Your task to perform on an android device: Search for 4k TVs on Best Buy. Image 0: 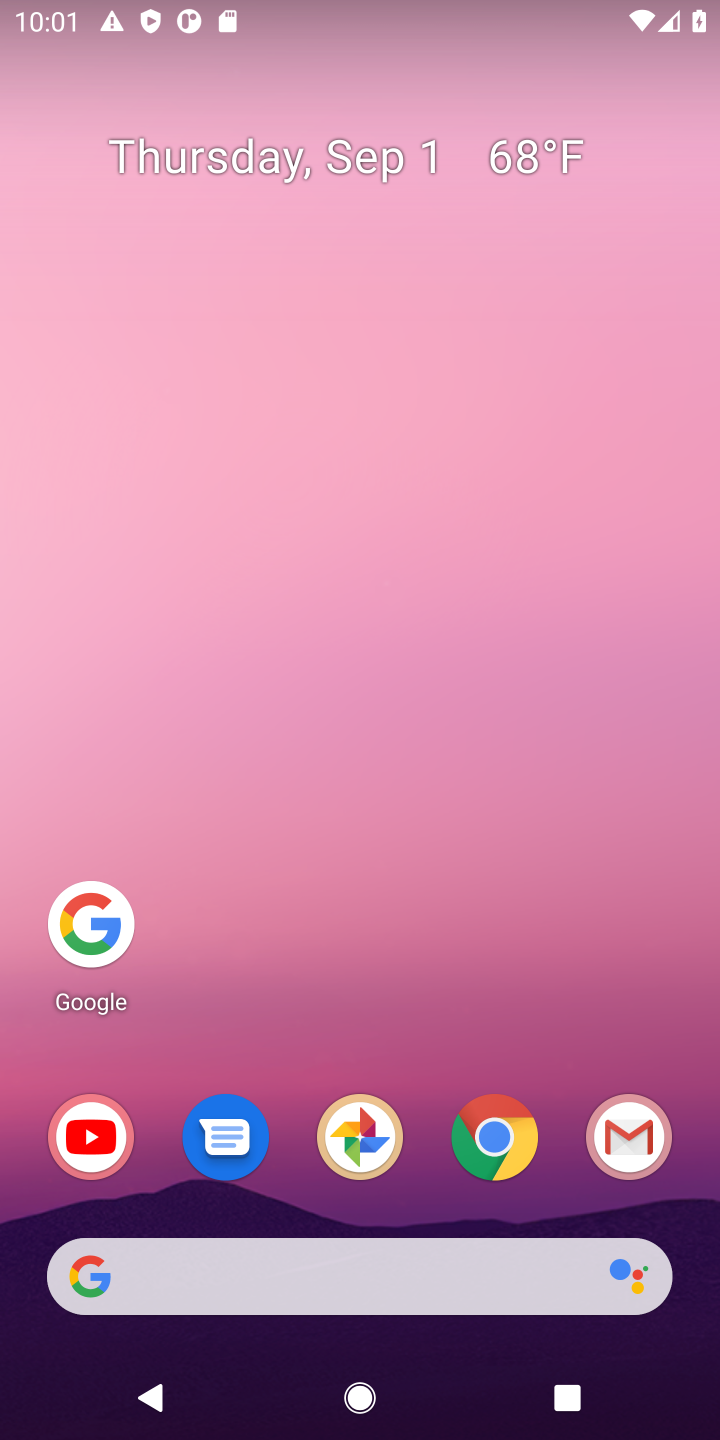
Step 0: click (313, 1264)
Your task to perform on an android device: Search for 4k TVs on Best Buy. Image 1: 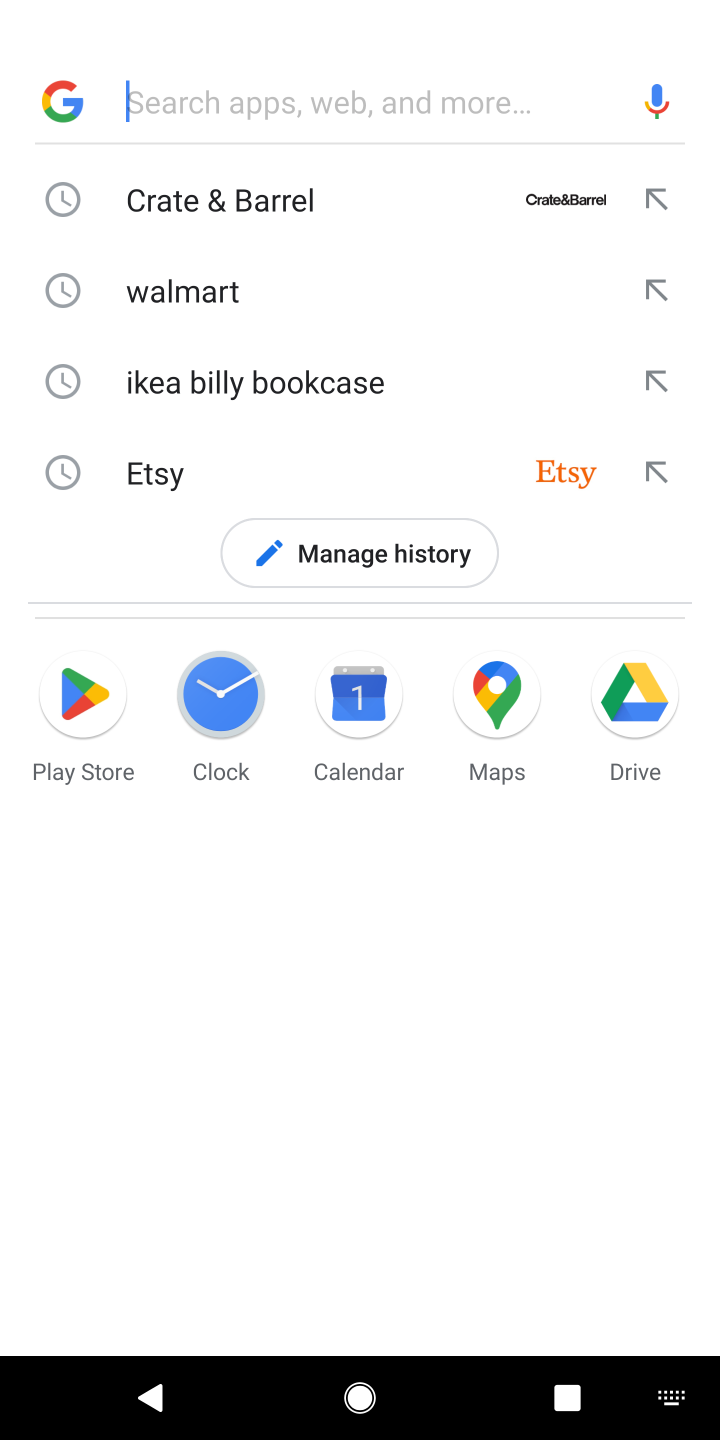
Step 1: type "best buy"
Your task to perform on an android device: Search for 4k TVs on Best Buy. Image 2: 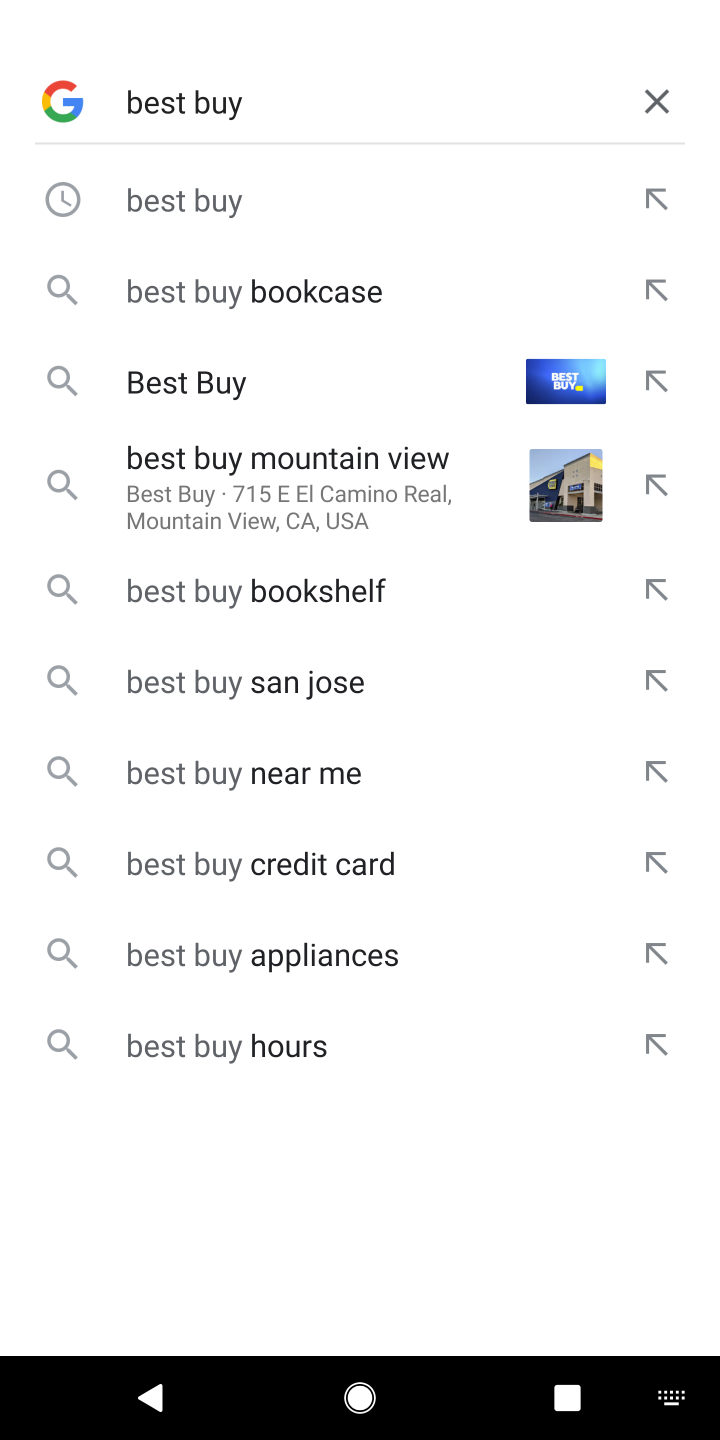
Step 2: click (145, 195)
Your task to perform on an android device: Search for 4k TVs on Best Buy. Image 3: 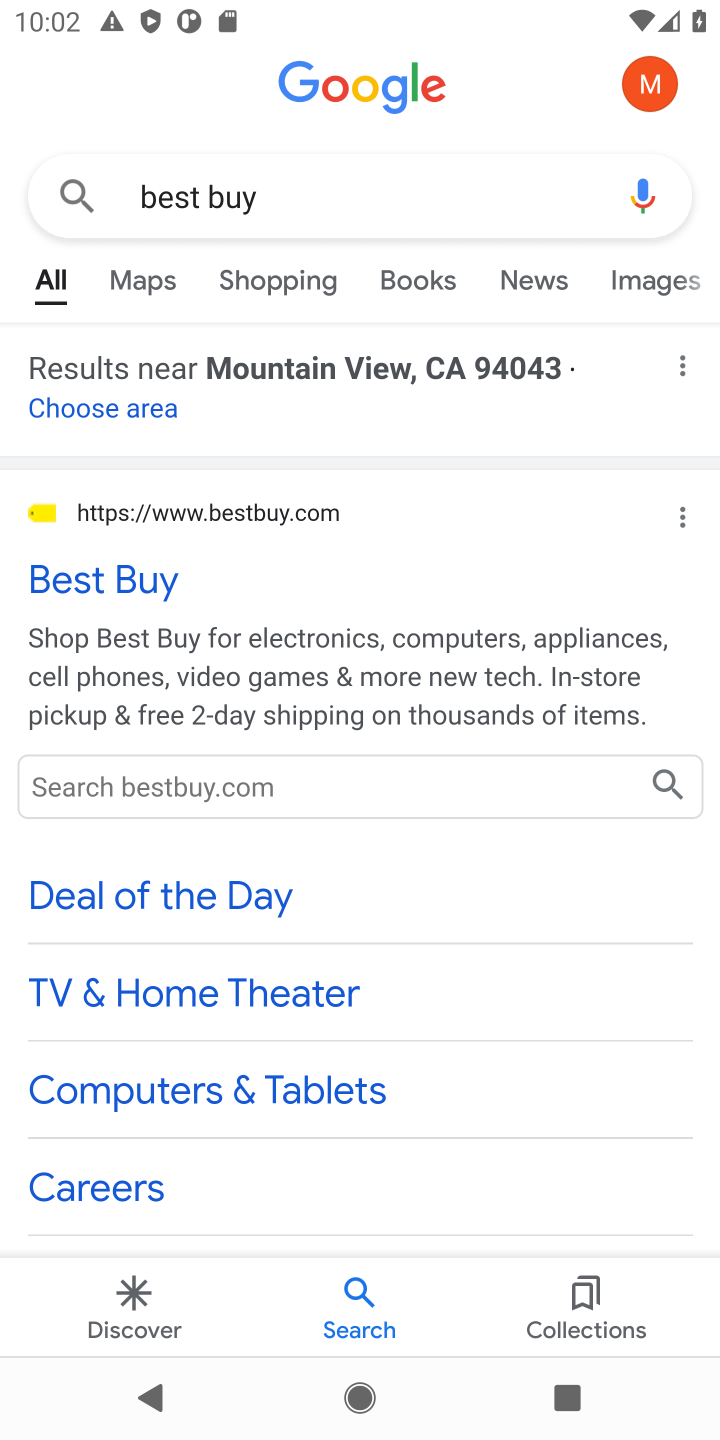
Step 3: click (73, 597)
Your task to perform on an android device: Search for 4k TVs on Best Buy. Image 4: 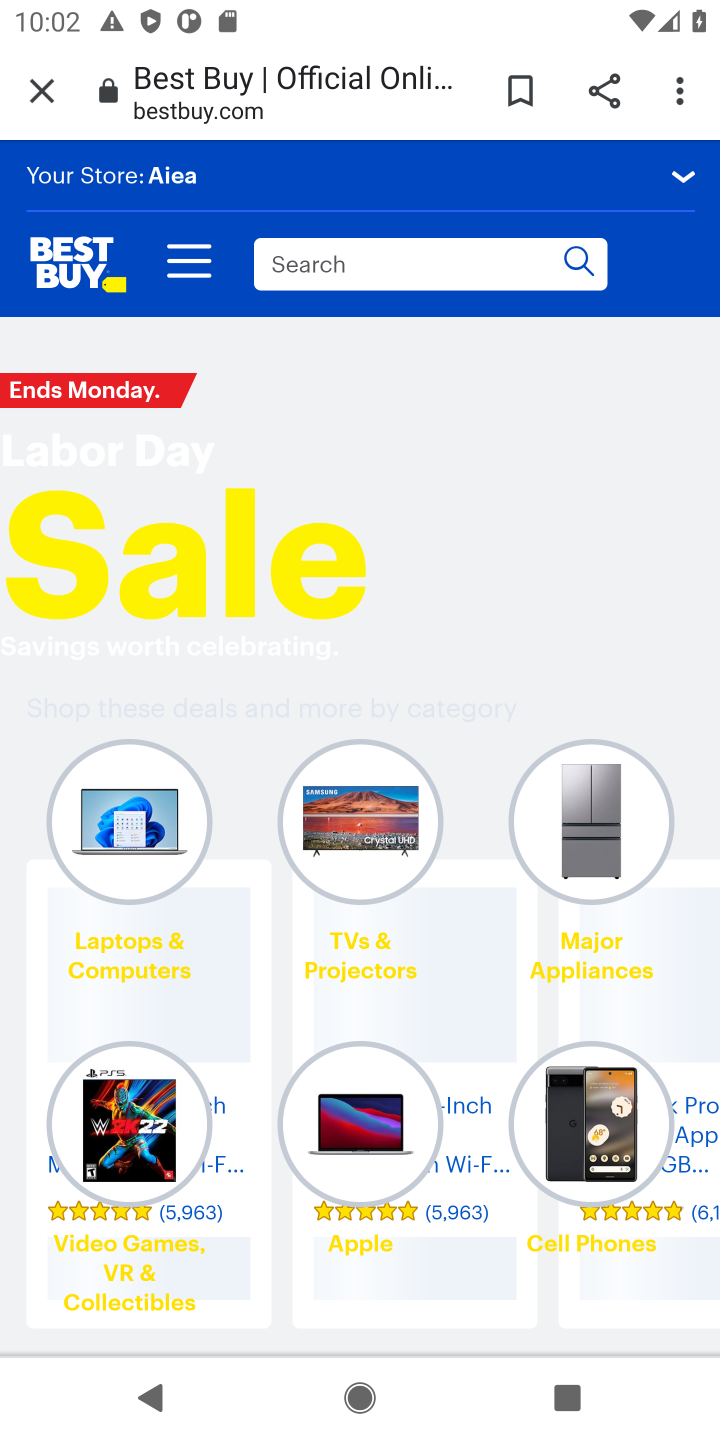
Step 4: click (428, 266)
Your task to perform on an android device: Search for 4k TVs on Best Buy. Image 5: 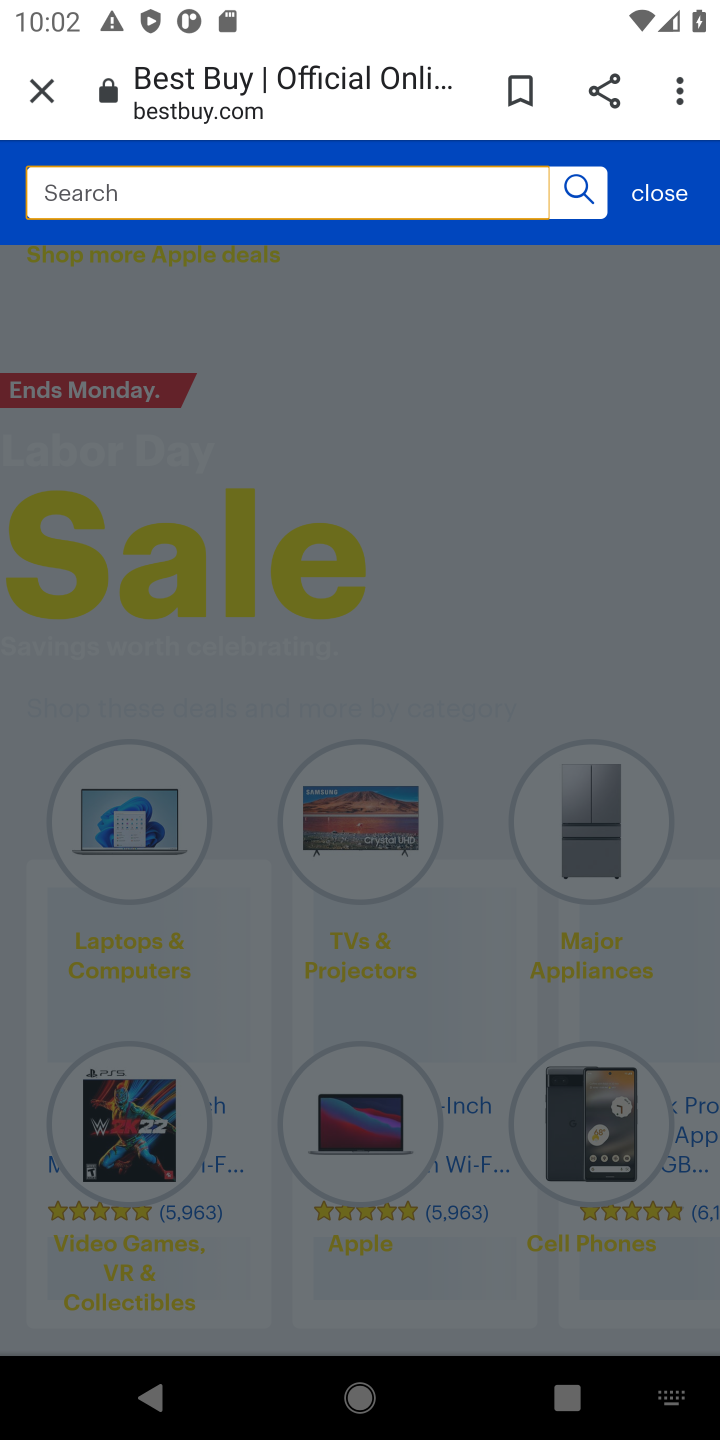
Step 5: type "4k TVs"
Your task to perform on an android device: Search for 4k TVs on Best Buy. Image 6: 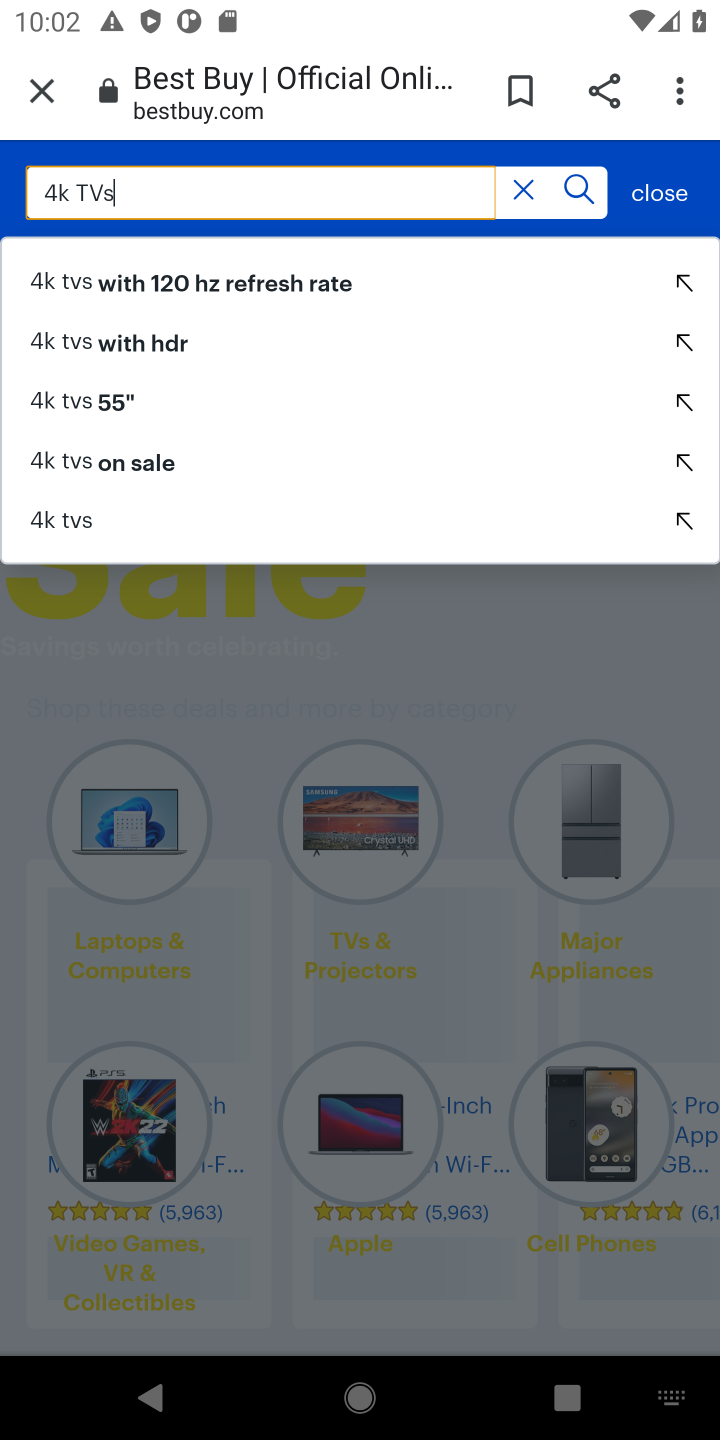
Step 6: click (577, 184)
Your task to perform on an android device: Search for 4k TVs on Best Buy. Image 7: 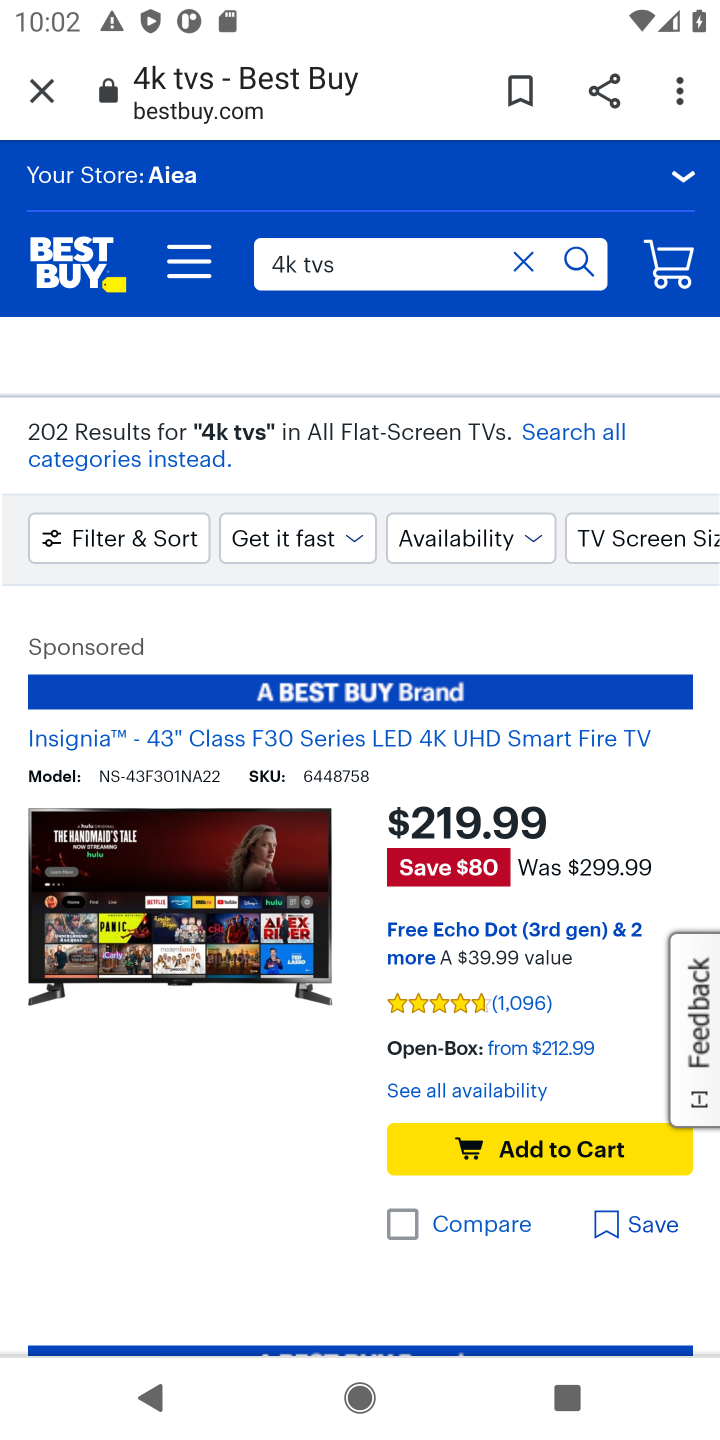
Step 7: task complete